Your task to perform on an android device: Open Chrome and go to settings Image 0: 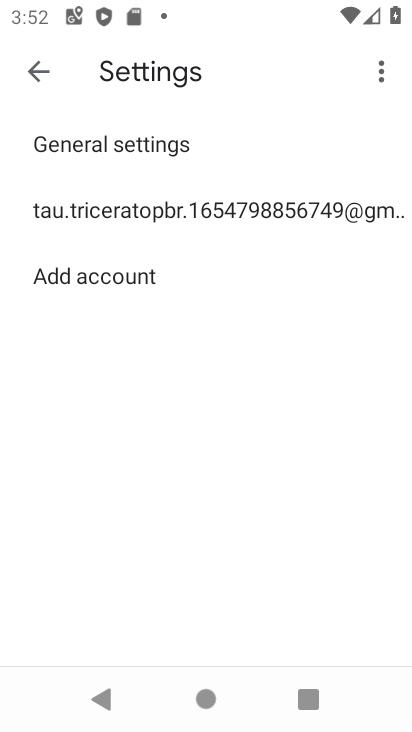
Step 0: press home button
Your task to perform on an android device: Open Chrome and go to settings Image 1: 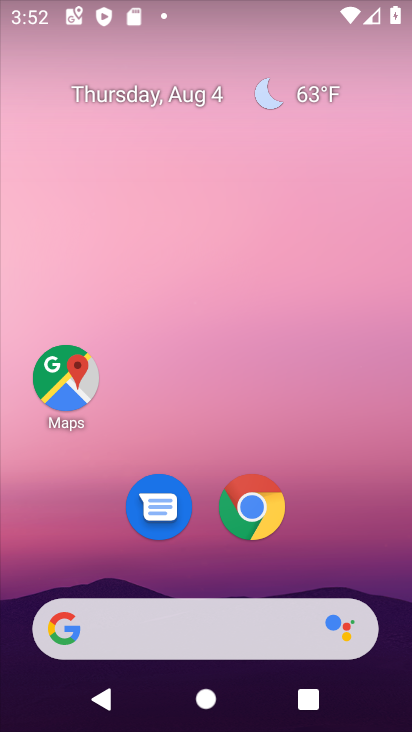
Step 1: drag from (42, 695) to (219, 129)
Your task to perform on an android device: Open Chrome and go to settings Image 2: 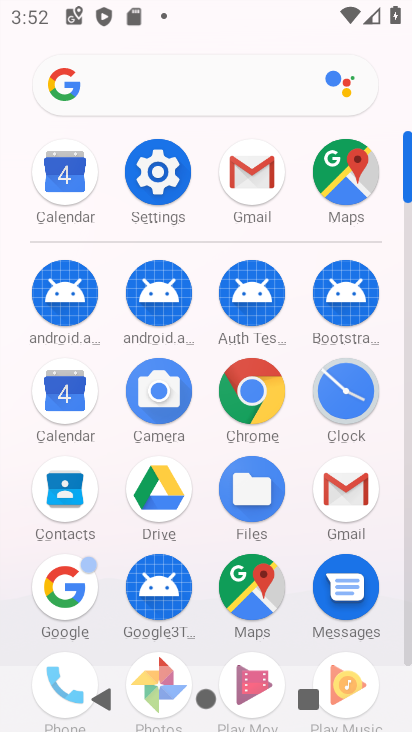
Step 2: click (240, 391)
Your task to perform on an android device: Open Chrome and go to settings Image 3: 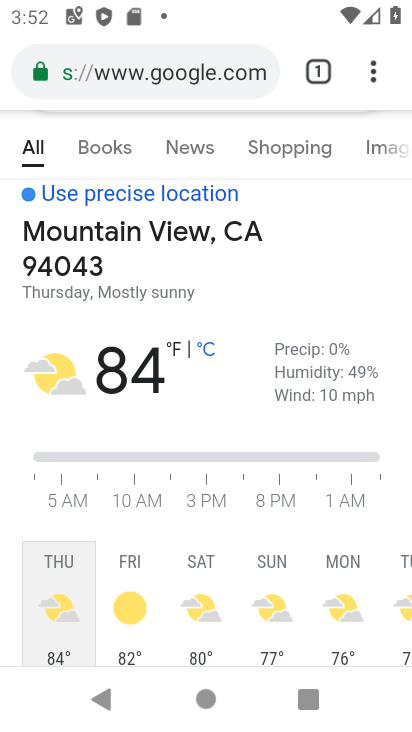
Step 3: click (388, 73)
Your task to perform on an android device: Open Chrome and go to settings Image 4: 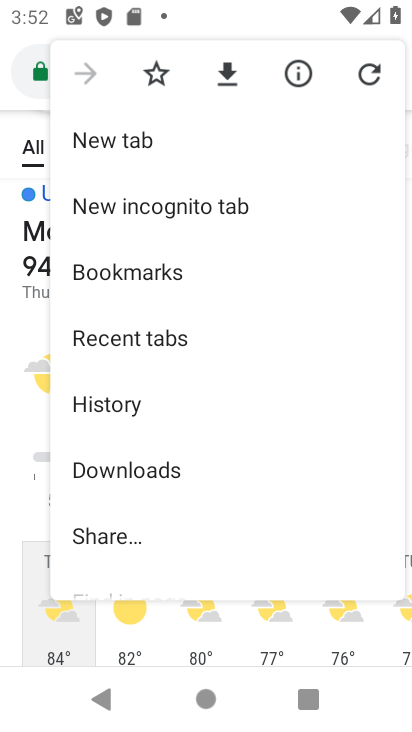
Step 4: drag from (213, 558) to (223, 162)
Your task to perform on an android device: Open Chrome and go to settings Image 5: 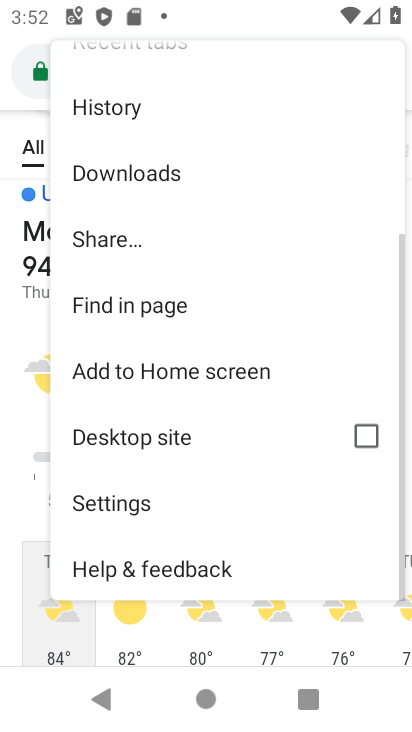
Step 5: click (102, 490)
Your task to perform on an android device: Open Chrome and go to settings Image 6: 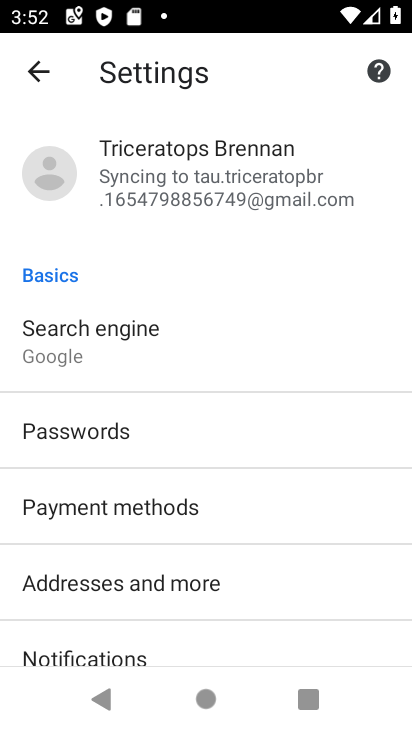
Step 6: task complete